Your task to perform on an android device: Go to settings Image 0: 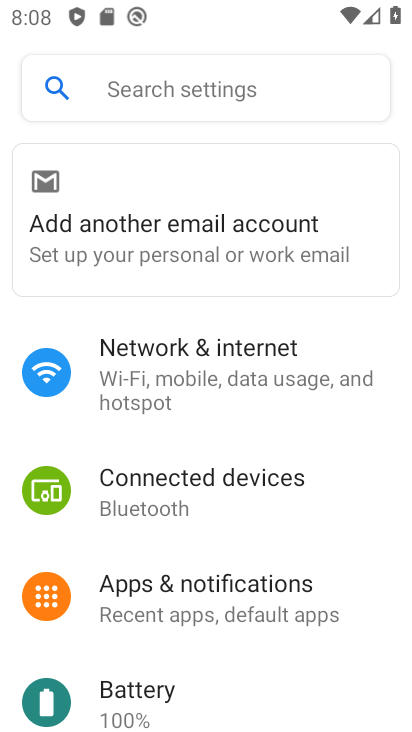
Step 0: task complete